Your task to perform on an android device: Go to battery settings Image 0: 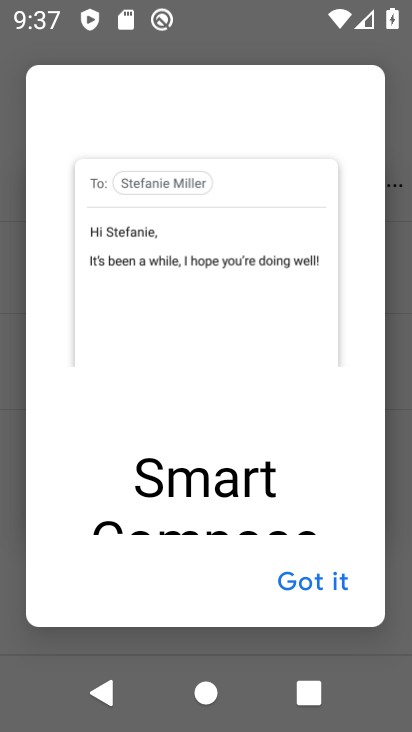
Step 0: press home button
Your task to perform on an android device: Go to battery settings Image 1: 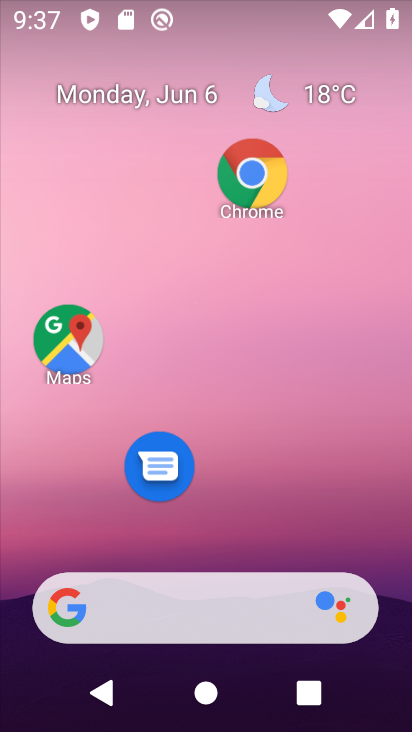
Step 1: drag from (165, 554) to (147, 313)
Your task to perform on an android device: Go to battery settings Image 2: 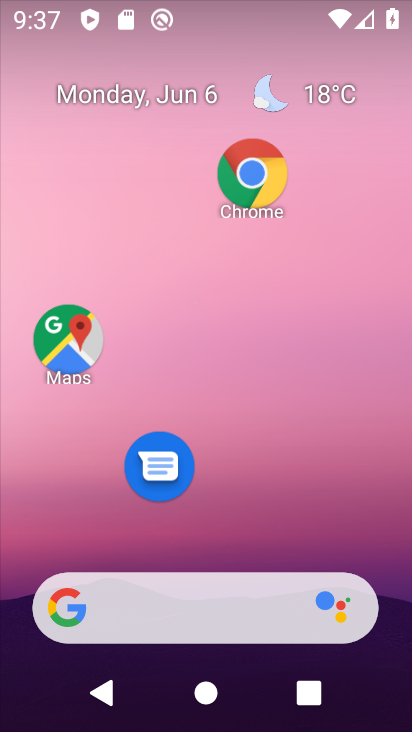
Step 2: drag from (211, 560) to (234, 144)
Your task to perform on an android device: Go to battery settings Image 3: 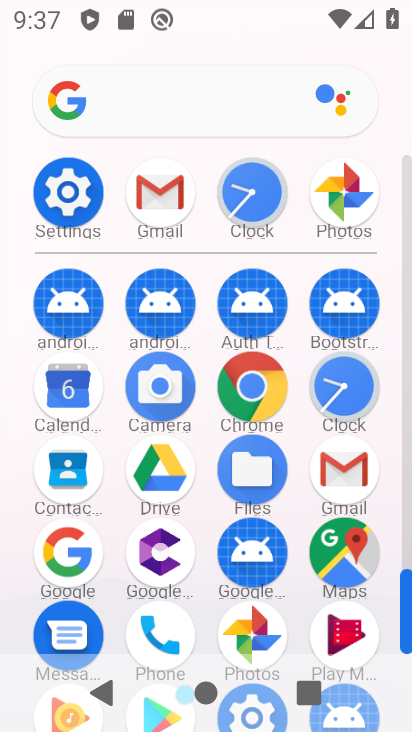
Step 3: click (69, 206)
Your task to perform on an android device: Go to battery settings Image 4: 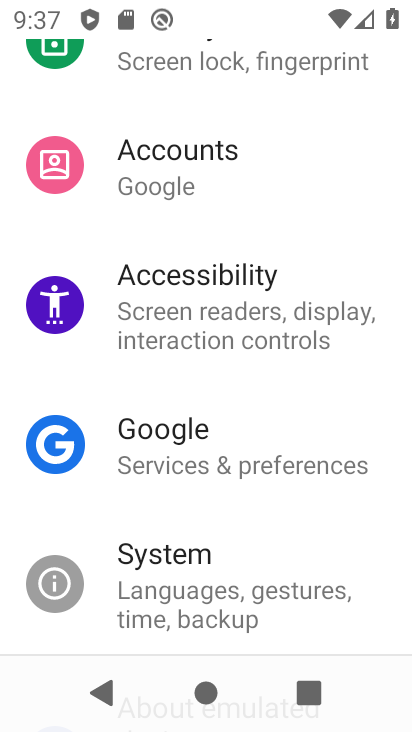
Step 4: drag from (181, 276) to (154, 701)
Your task to perform on an android device: Go to battery settings Image 5: 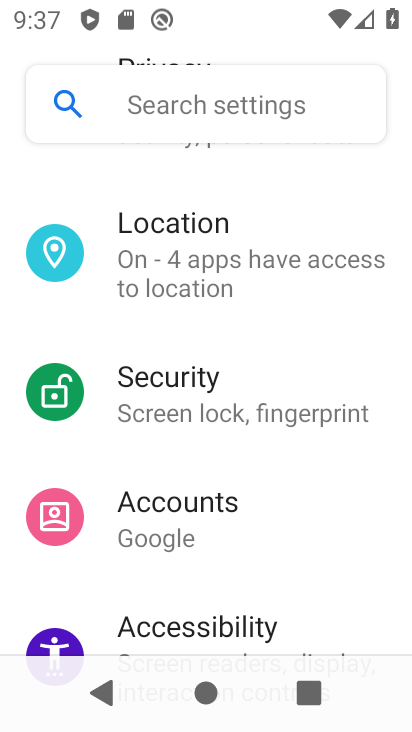
Step 5: drag from (156, 364) to (164, 622)
Your task to perform on an android device: Go to battery settings Image 6: 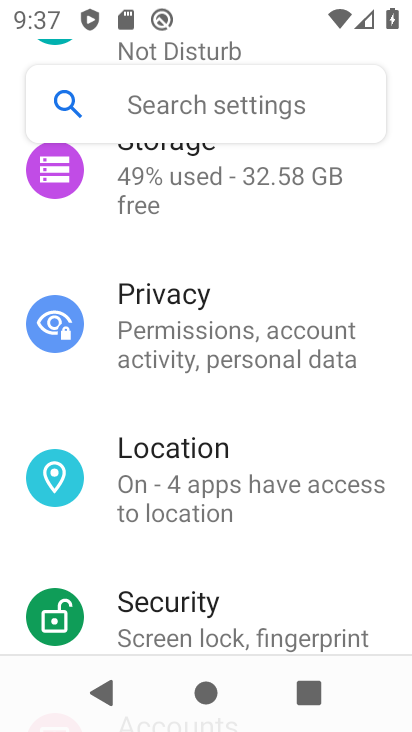
Step 6: drag from (179, 380) to (153, 688)
Your task to perform on an android device: Go to battery settings Image 7: 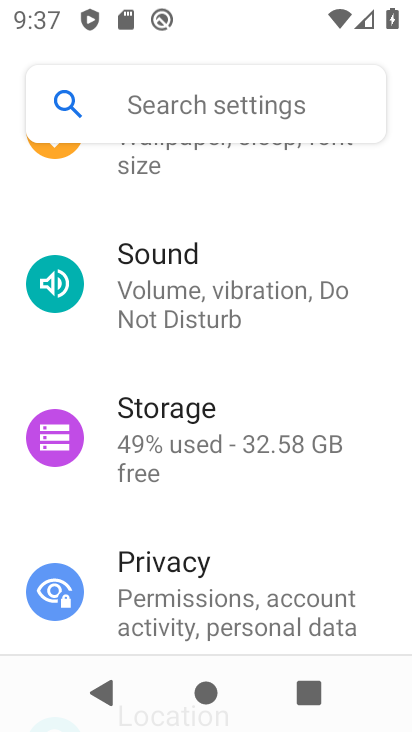
Step 7: drag from (176, 398) to (180, 684)
Your task to perform on an android device: Go to battery settings Image 8: 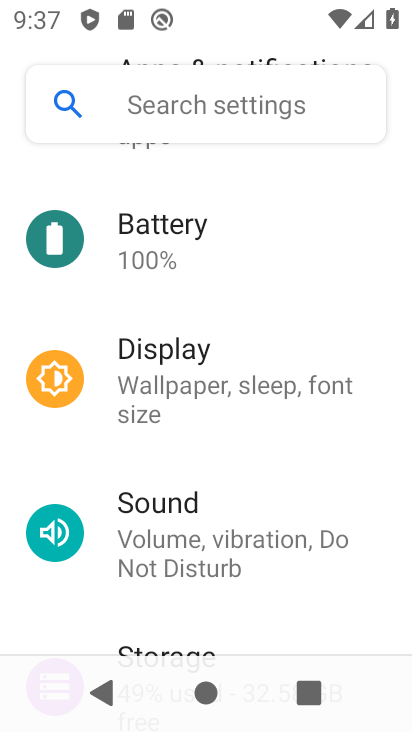
Step 8: click (165, 265)
Your task to perform on an android device: Go to battery settings Image 9: 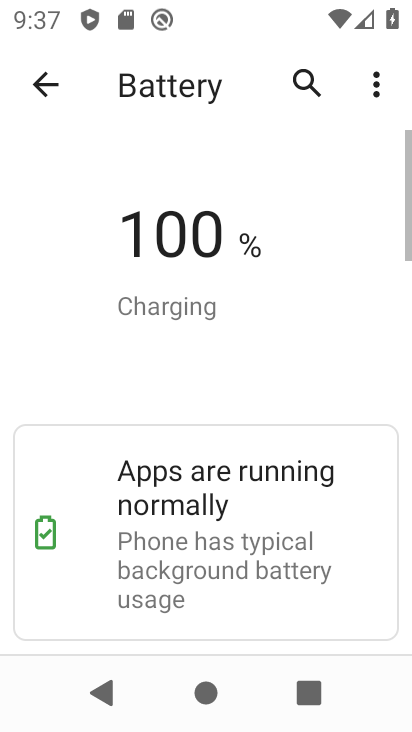
Step 9: task complete